Your task to perform on an android device: Open Google Maps Image 0: 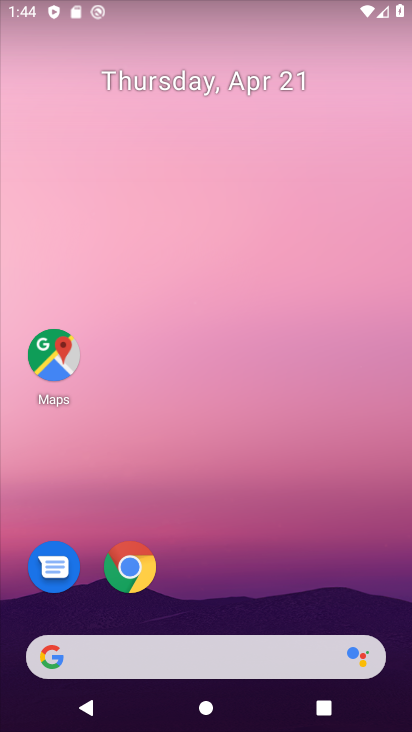
Step 0: drag from (178, 553) to (310, 103)
Your task to perform on an android device: Open Google Maps Image 1: 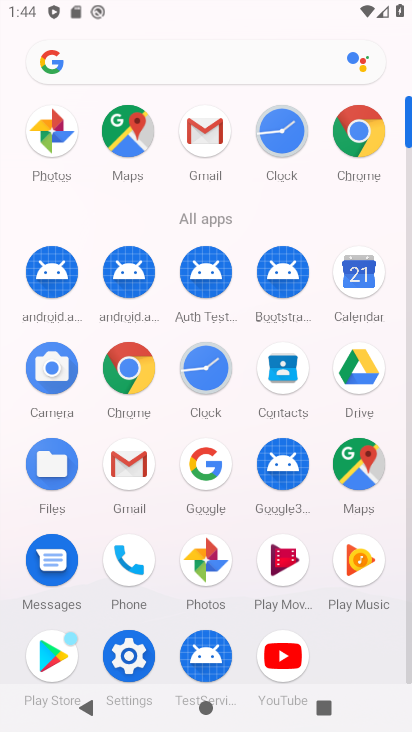
Step 1: click (122, 136)
Your task to perform on an android device: Open Google Maps Image 2: 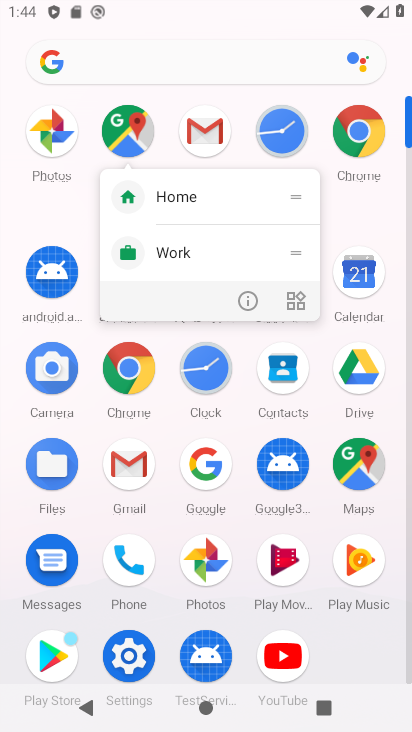
Step 2: click (136, 140)
Your task to perform on an android device: Open Google Maps Image 3: 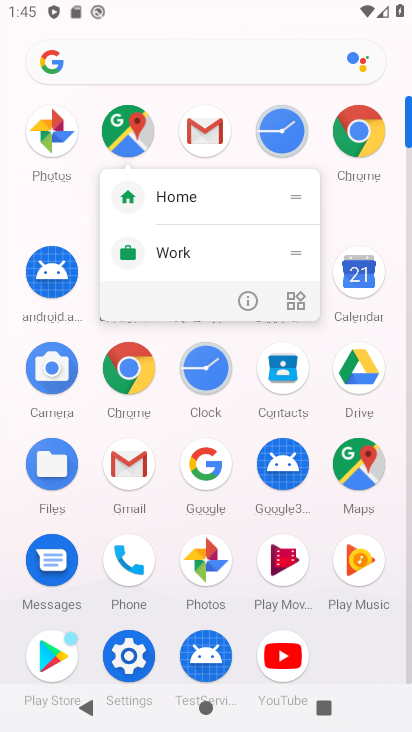
Step 3: click (124, 148)
Your task to perform on an android device: Open Google Maps Image 4: 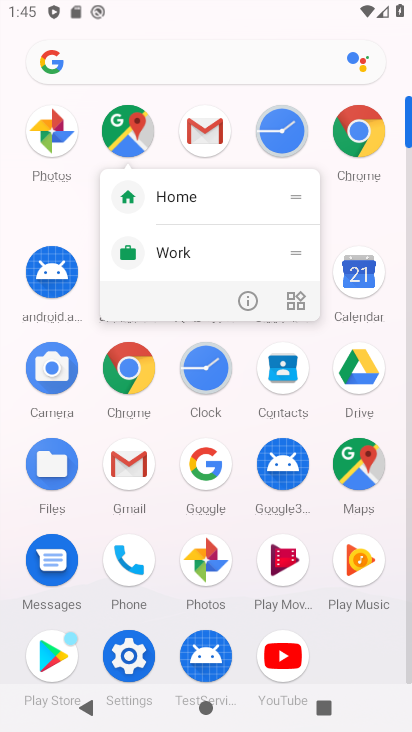
Step 4: click (118, 133)
Your task to perform on an android device: Open Google Maps Image 5: 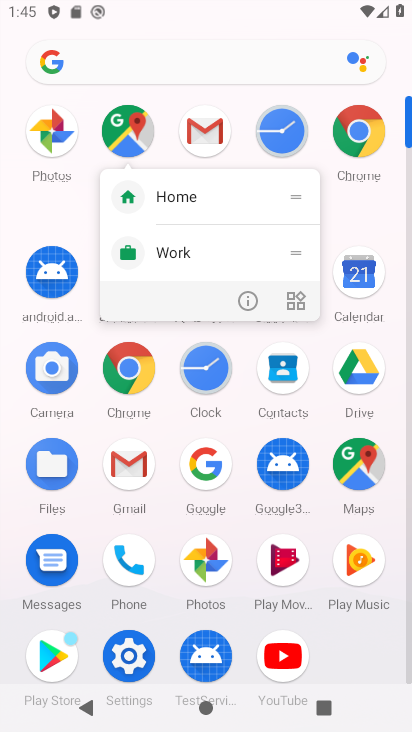
Step 5: click (124, 140)
Your task to perform on an android device: Open Google Maps Image 6: 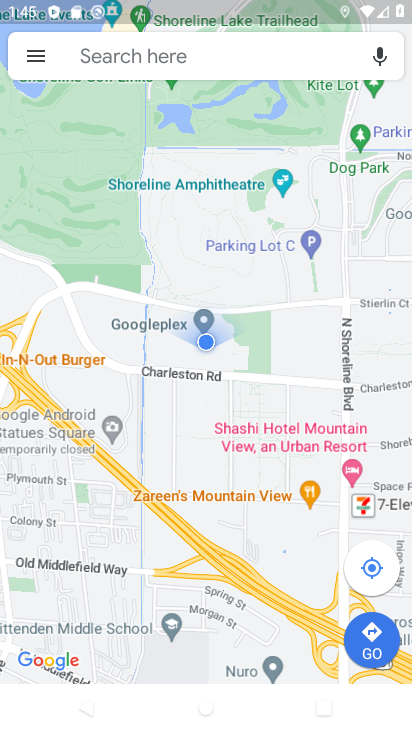
Step 6: task complete